Your task to perform on an android device: Turn on the flashlight Image 0: 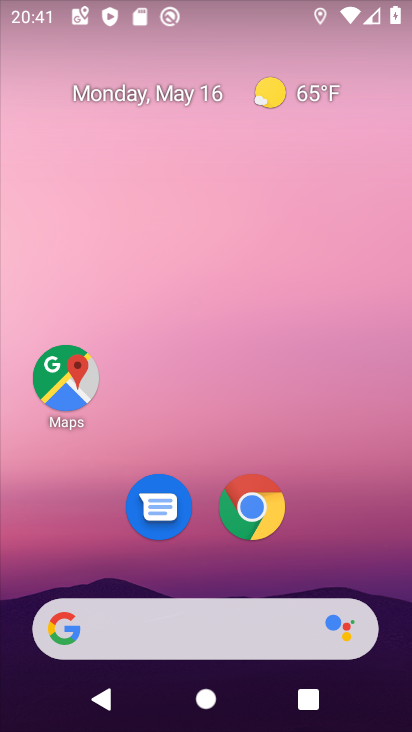
Step 0: drag from (221, 583) to (240, 11)
Your task to perform on an android device: Turn on the flashlight Image 1: 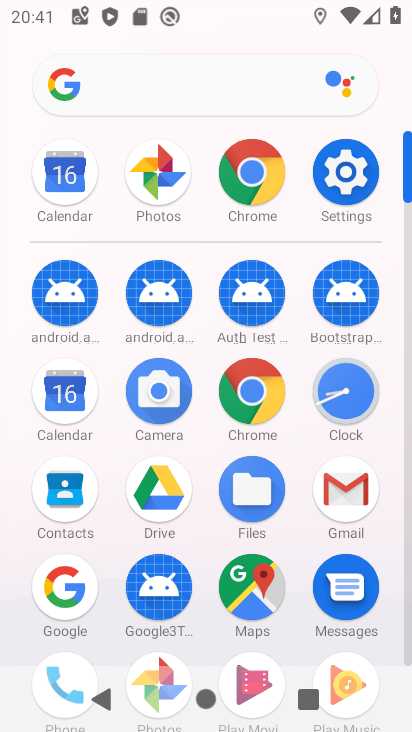
Step 1: click (335, 184)
Your task to perform on an android device: Turn on the flashlight Image 2: 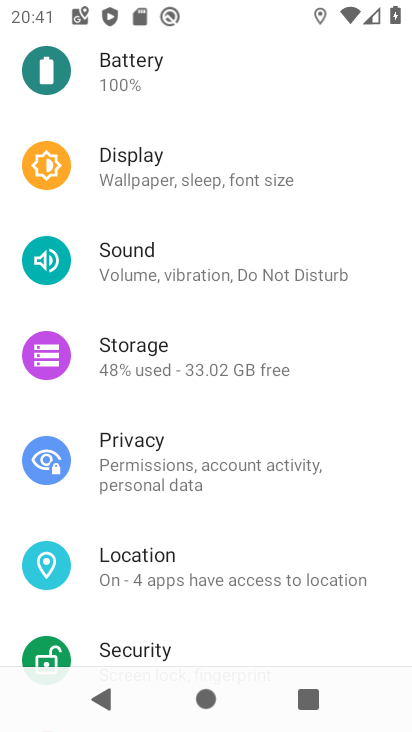
Step 2: task complete